Your task to perform on an android device: Open calendar and show me the second week of next month Image 0: 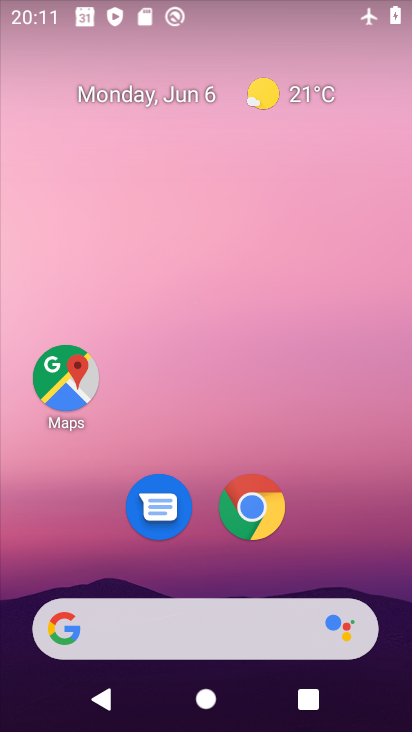
Step 0: drag from (207, 579) to (198, 84)
Your task to perform on an android device: Open calendar and show me the second week of next month Image 1: 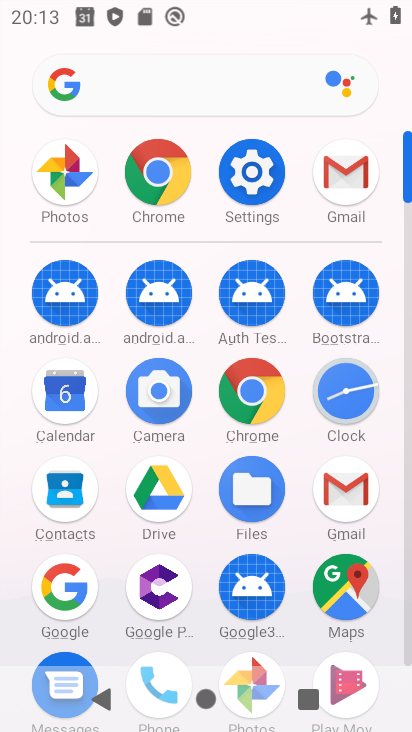
Step 1: drag from (200, 628) to (204, 217)
Your task to perform on an android device: Open calendar and show me the second week of next month Image 2: 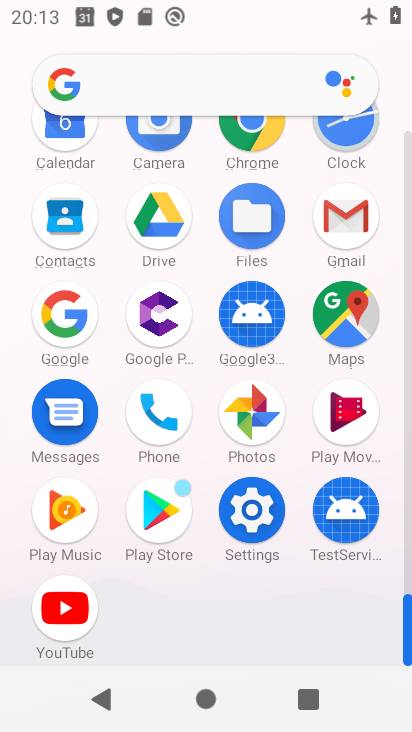
Step 2: click (48, 163)
Your task to perform on an android device: Open calendar and show me the second week of next month Image 3: 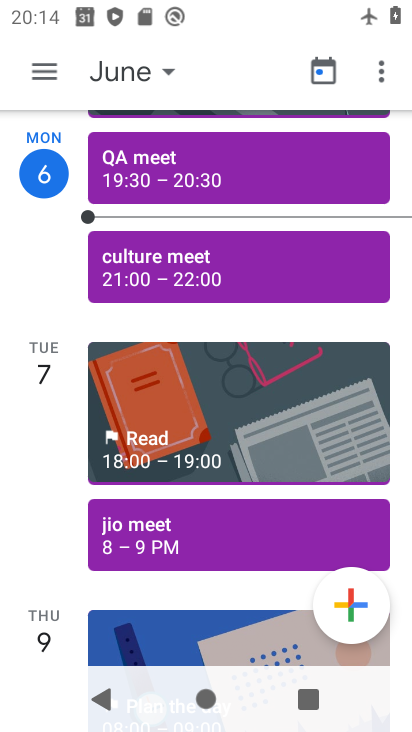
Step 3: click (100, 80)
Your task to perform on an android device: Open calendar and show me the second week of next month Image 4: 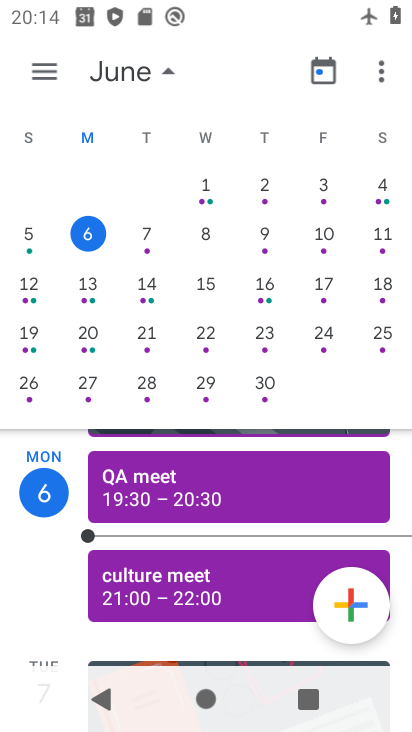
Step 4: click (51, 67)
Your task to perform on an android device: Open calendar and show me the second week of next month Image 5: 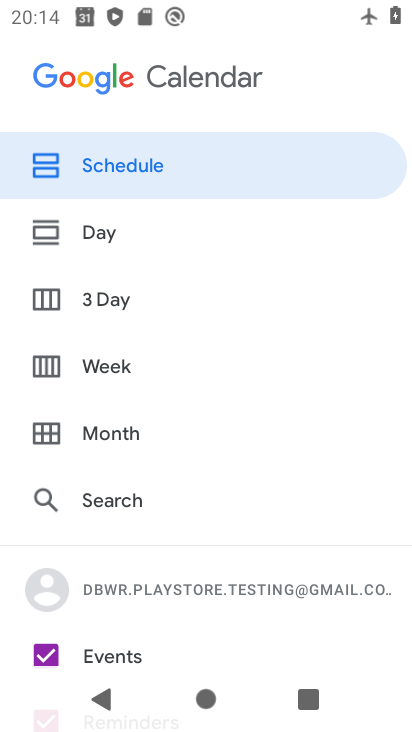
Step 5: click (125, 381)
Your task to perform on an android device: Open calendar and show me the second week of next month Image 6: 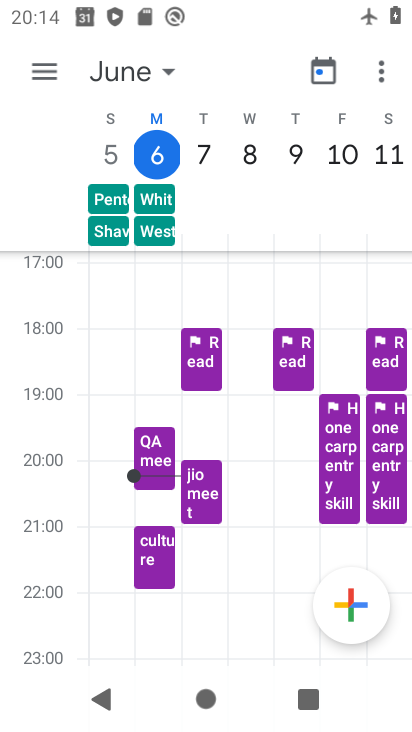
Step 6: click (130, 85)
Your task to perform on an android device: Open calendar and show me the second week of next month Image 7: 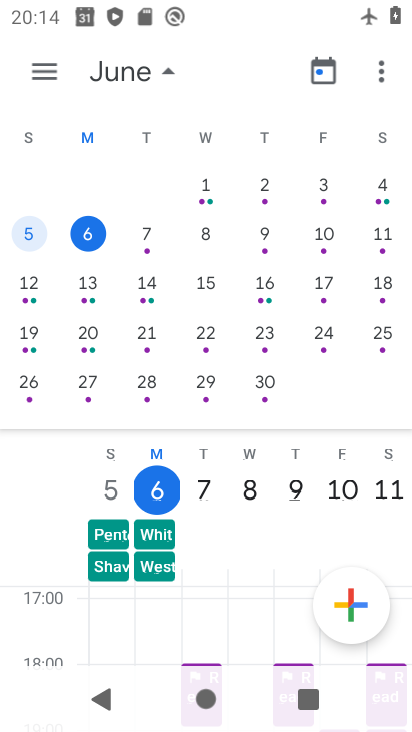
Step 7: drag from (332, 307) to (7, 344)
Your task to perform on an android device: Open calendar and show me the second week of next month Image 8: 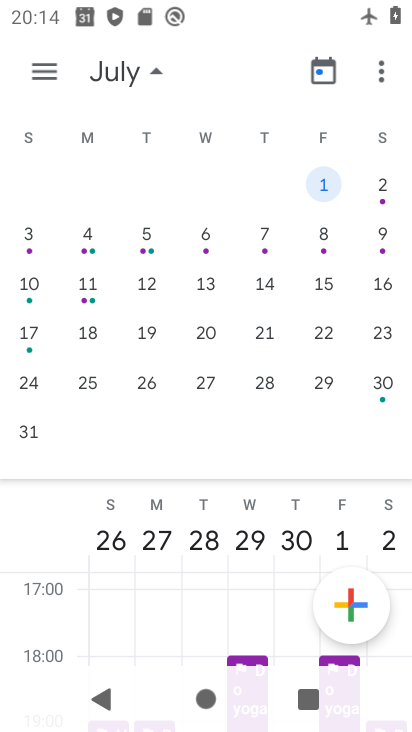
Step 8: click (26, 290)
Your task to perform on an android device: Open calendar and show me the second week of next month Image 9: 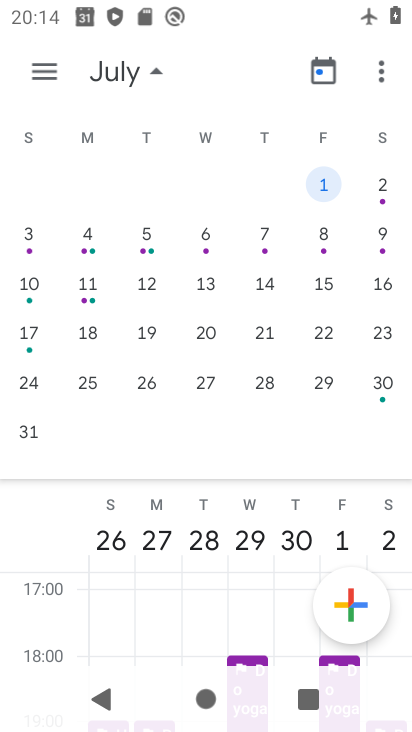
Step 9: click (26, 290)
Your task to perform on an android device: Open calendar and show me the second week of next month Image 10: 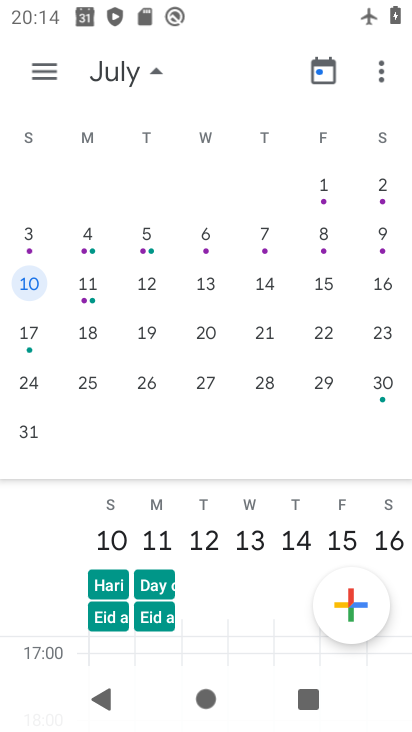
Step 10: task complete